Your task to perform on an android device: See recent photos Image 0: 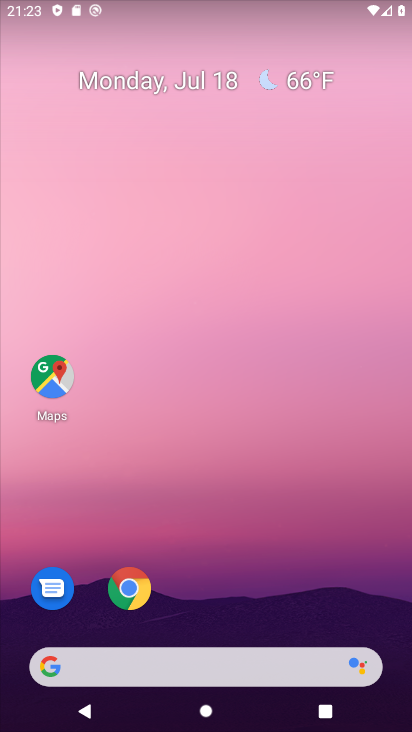
Step 0: drag from (291, 597) to (306, 68)
Your task to perform on an android device: See recent photos Image 1: 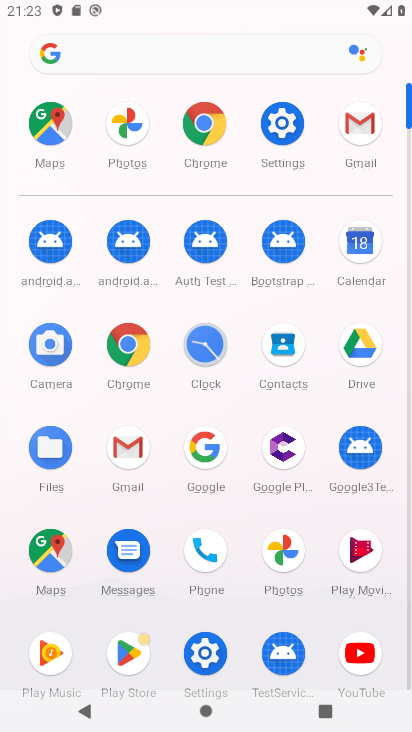
Step 1: click (289, 564)
Your task to perform on an android device: See recent photos Image 2: 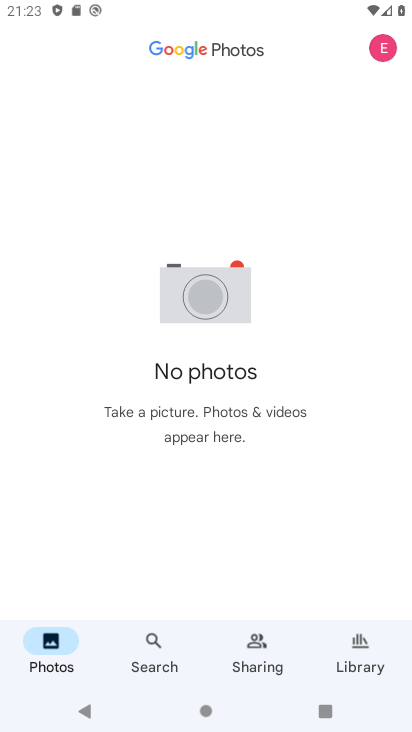
Step 2: task complete